Your task to perform on an android device: Go to internet settings Image 0: 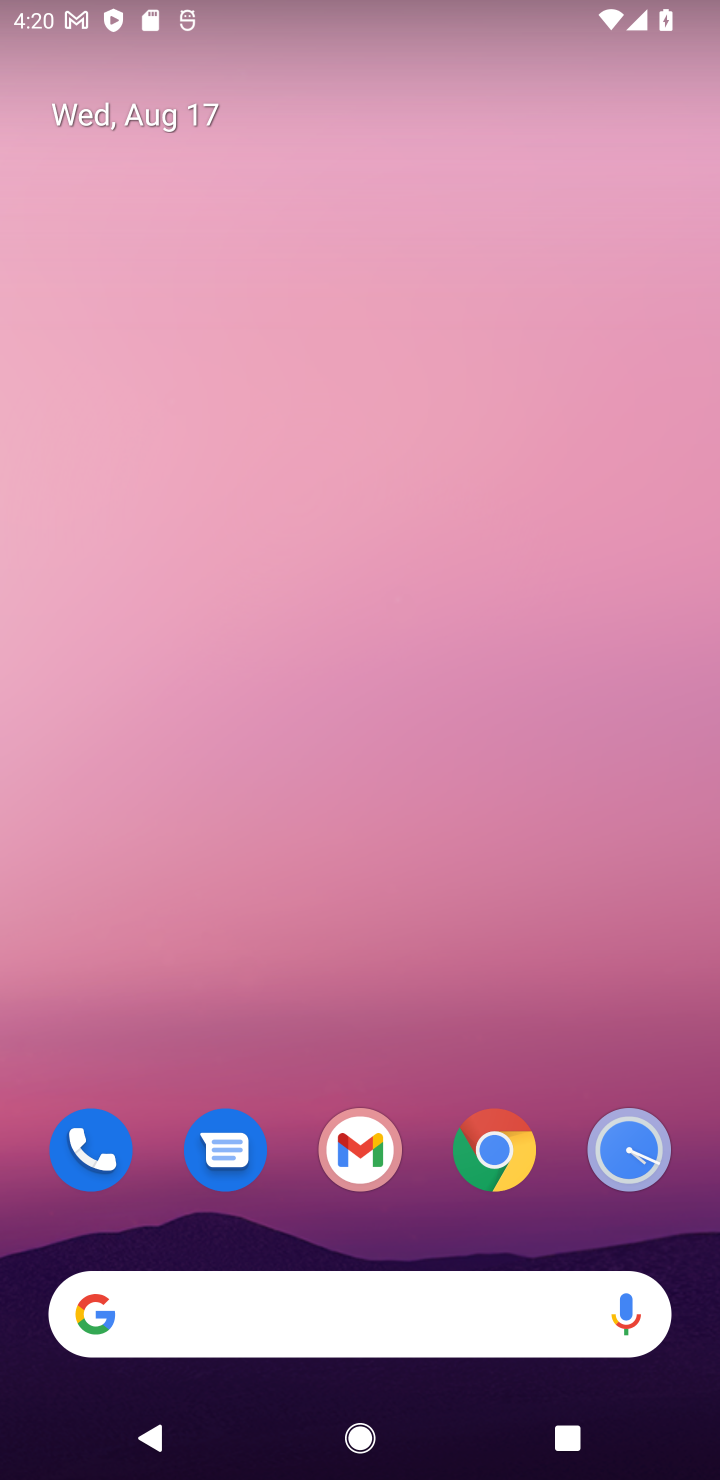
Step 0: drag from (669, 1184) to (431, 38)
Your task to perform on an android device: Go to internet settings Image 1: 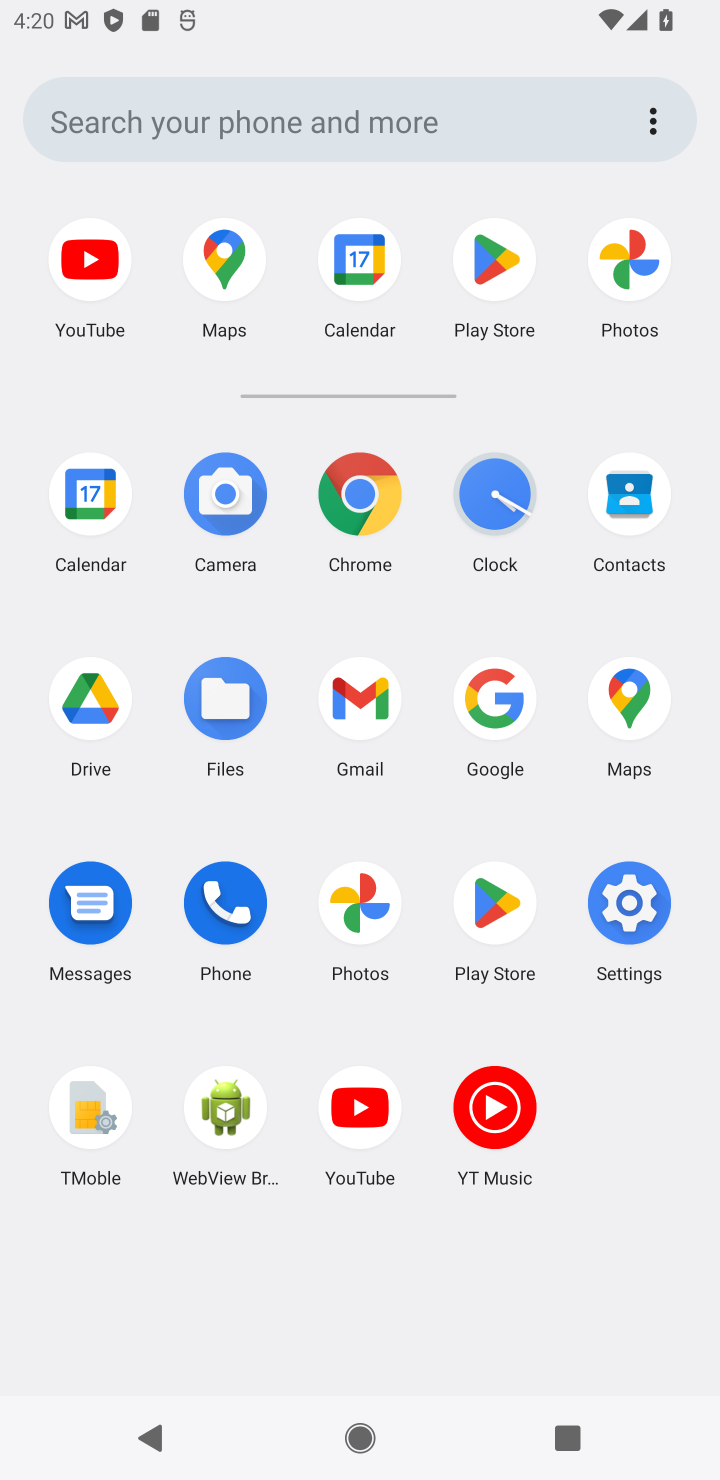
Step 1: click (595, 911)
Your task to perform on an android device: Go to internet settings Image 2: 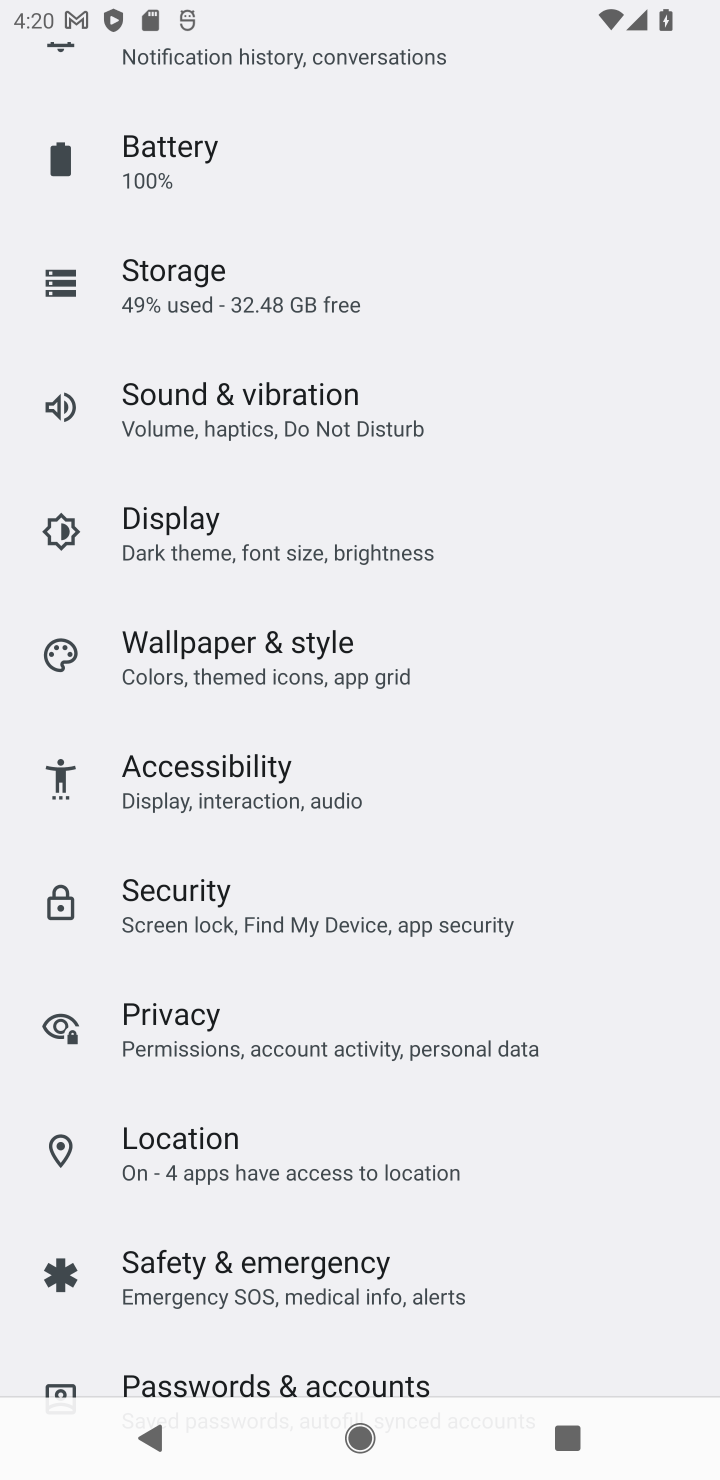
Step 2: drag from (340, 163) to (348, 1352)
Your task to perform on an android device: Go to internet settings Image 3: 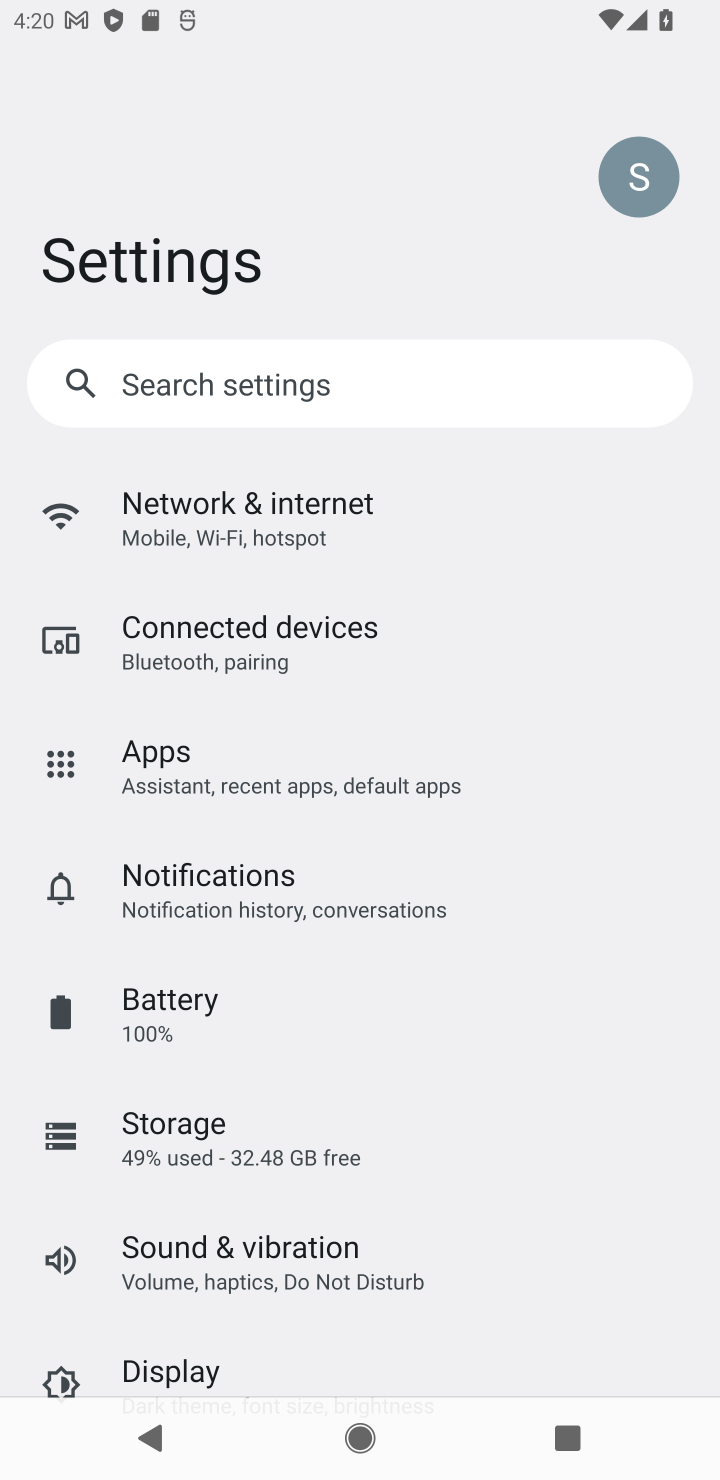
Step 3: click (347, 505)
Your task to perform on an android device: Go to internet settings Image 4: 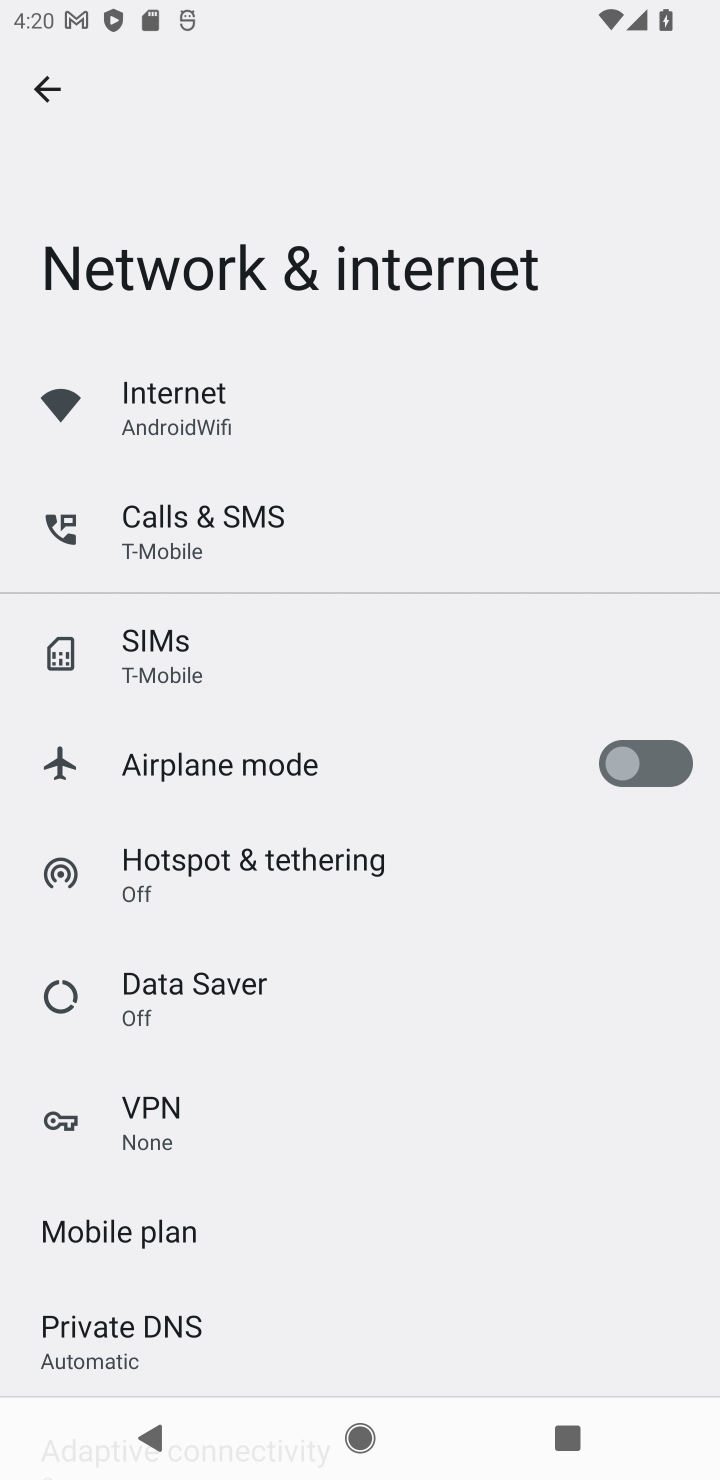
Step 4: task complete